Your task to perform on an android device: Do I have any events today? Image 0: 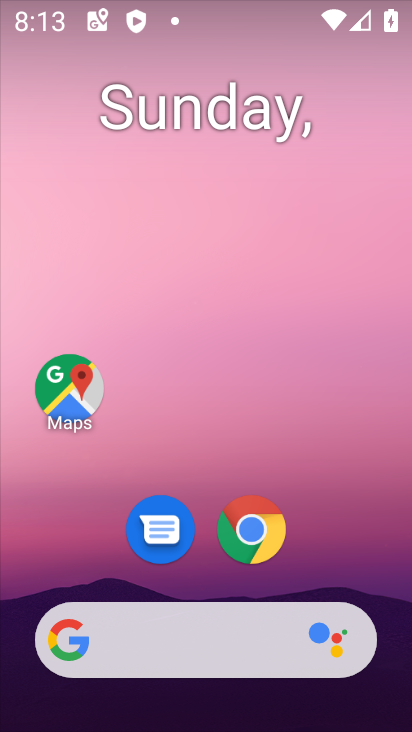
Step 0: drag from (355, 565) to (368, 176)
Your task to perform on an android device: Do I have any events today? Image 1: 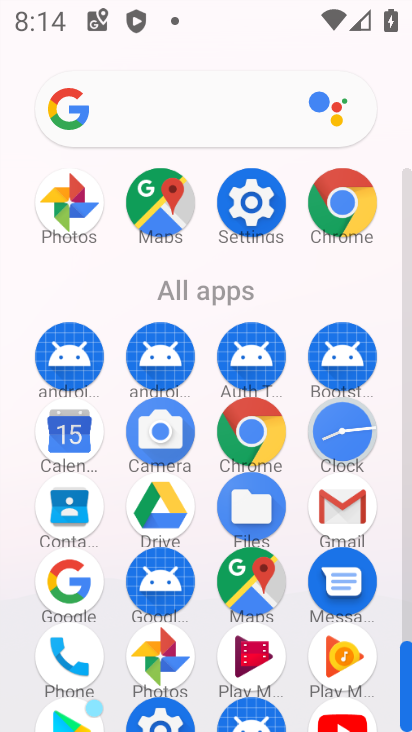
Step 1: click (75, 446)
Your task to perform on an android device: Do I have any events today? Image 2: 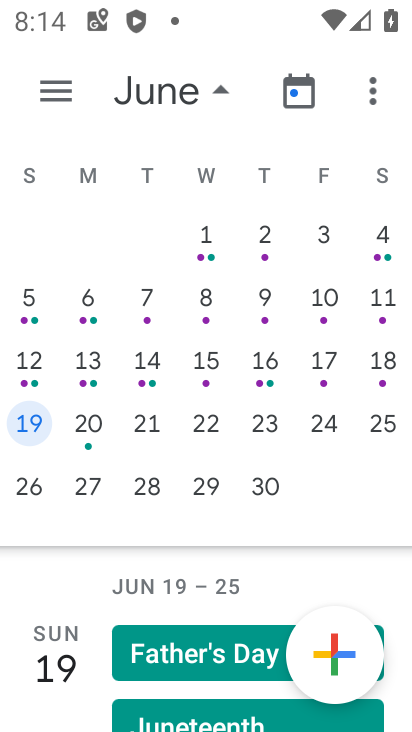
Step 2: click (87, 433)
Your task to perform on an android device: Do I have any events today? Image 3: 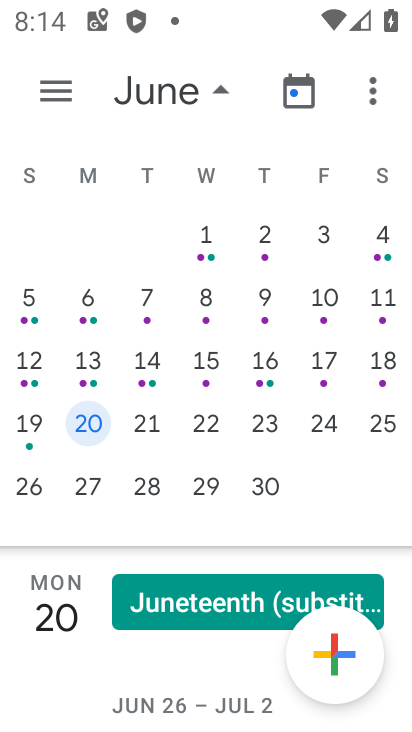
Step 3: task complete